Your task to perform on an android device: What's the weather going to be tomorrow? Image 0: 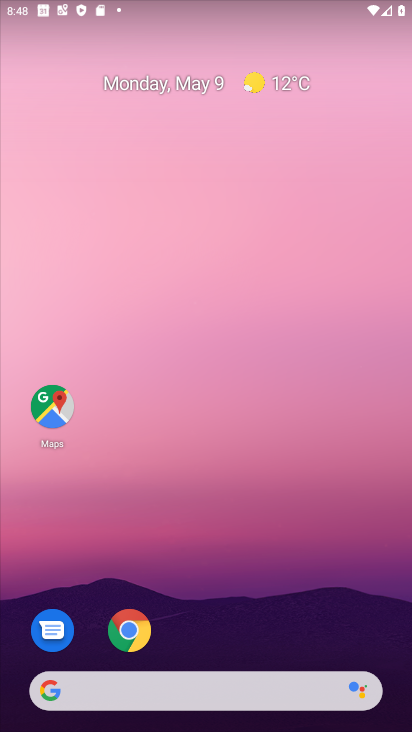
Step 0: drag from (166, 668) to (146, 451)
Your task to perform on an android device: What's the weather going to be tomorrow? Image 1: 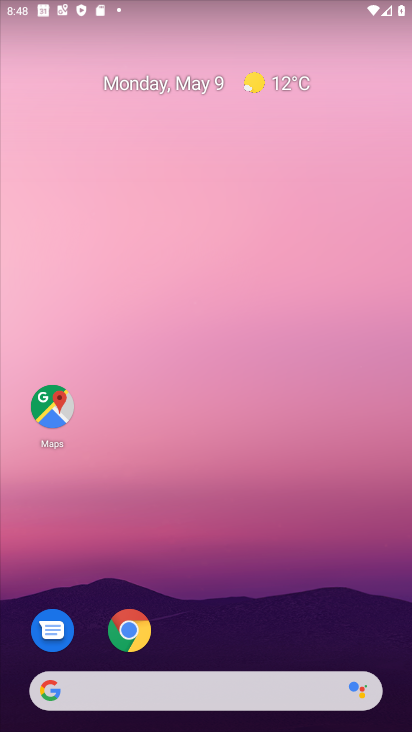
Step 1: drag from (210, 669) to (211, 162)
Your task to perform on an android device: What's the weather going to be tomorrow? Image 2: 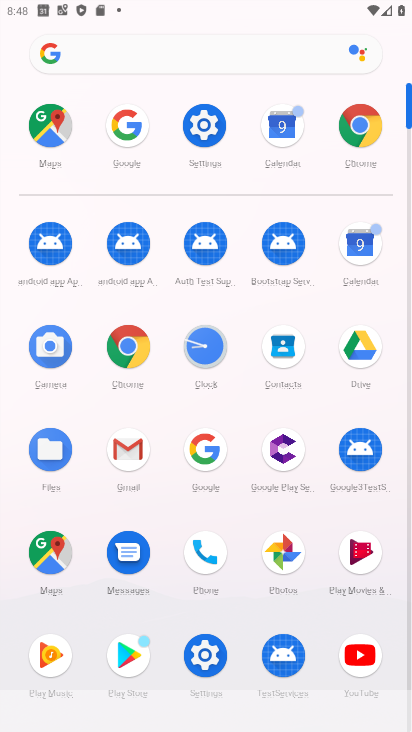
Step 2: click (114, 131)
Your task to perform on an android device: What's the weather going to be tomorrow? Image 3: 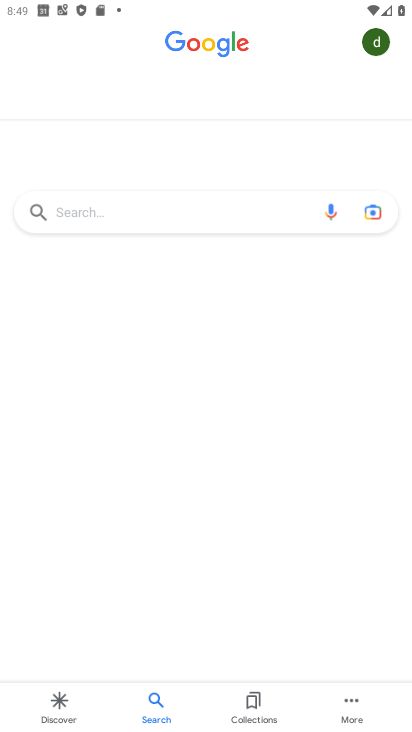
Step 3: click (179, 224)
Your task to perform on an android device: What's the weather going to be tomorrow? Image 4: 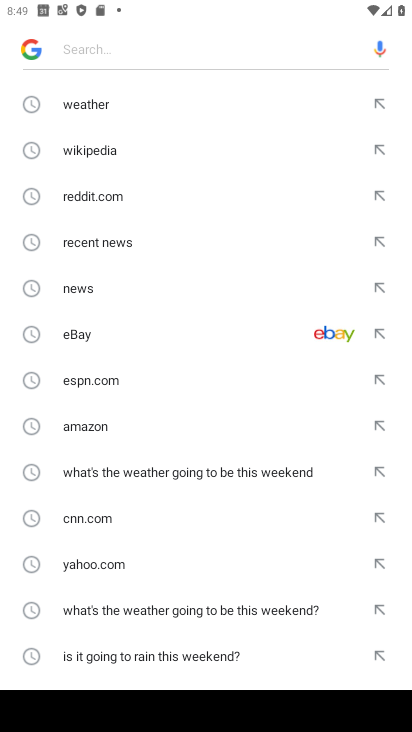
Step 4: click (93, 474)
Your task to perform on an android device: What's the weather going to be tomorrow? Image 5: 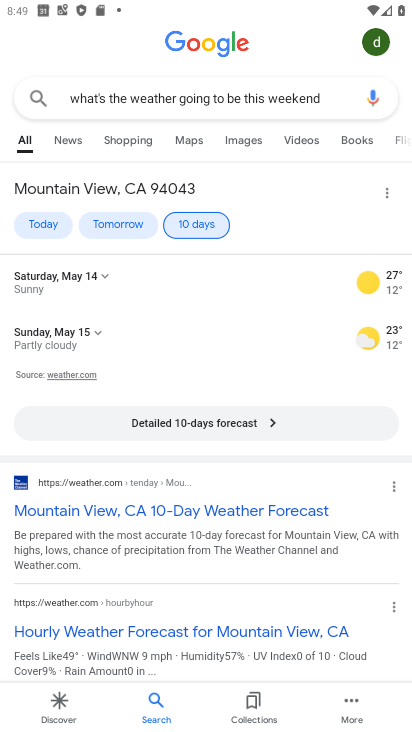
Step 5: click (328, 100)
Your task to perform on an android device: What's the weather going to be tomorrow? Image 6: 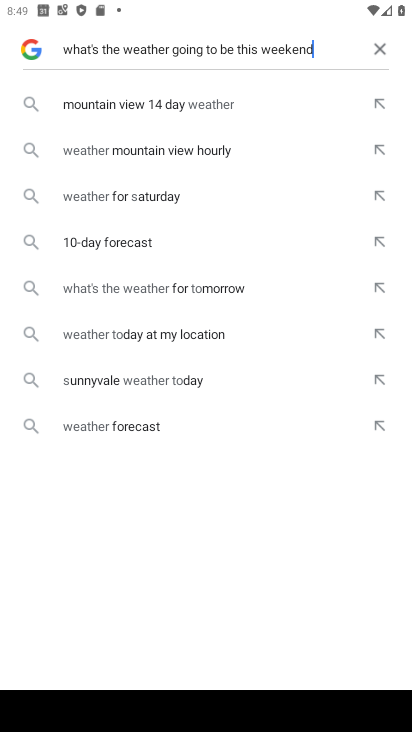
Step 6: click (185, 294)
Your task to perform on an android device: What's the weather going to be tomorrow? Image 7: 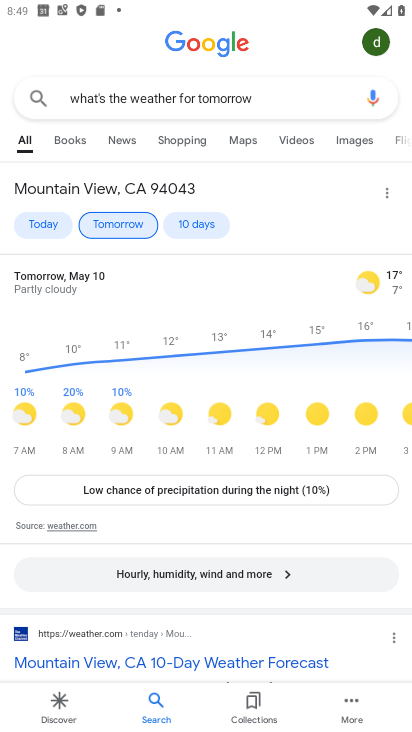
Step 7: click (158, 496)
Your task to perform on an android device: What's the weather going to be tomorrow? Image 8: 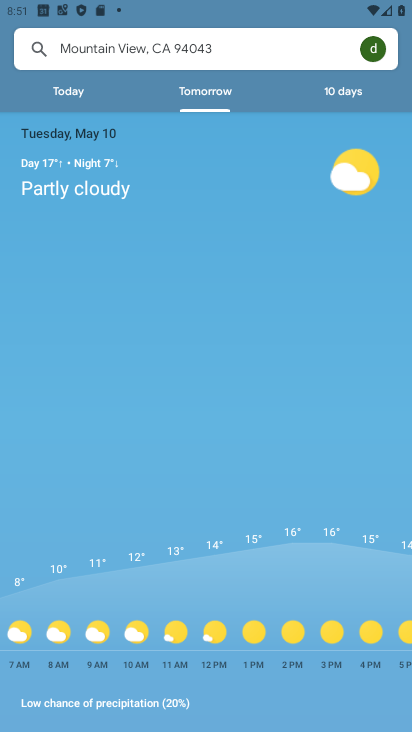
Step 8: task complete